Your task to perform on an android device: Clear the shopping cart on bestbuy.com. Search for "logitech g pro" on bestbuy.com, select the first entry, and add it to the cart. Image 0: 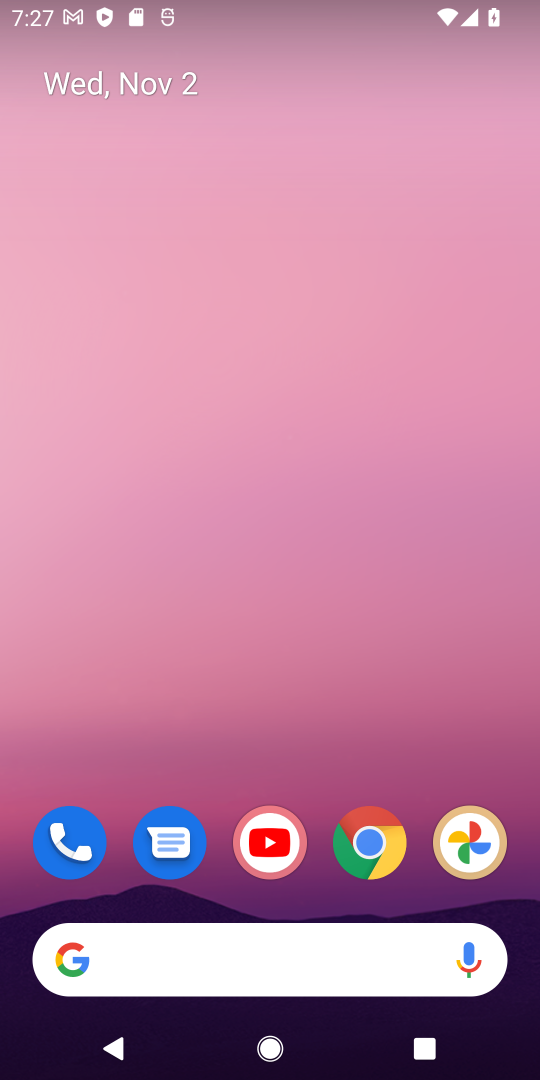
Step 0: drag from (200, 852) to (256, 144)
Your task to perform on an android device: Clear the shopping cart on bestbuy.com. Search for "logitech g pro" on bestbuy.com, select the first entry, and add it to the cart. Image 1: 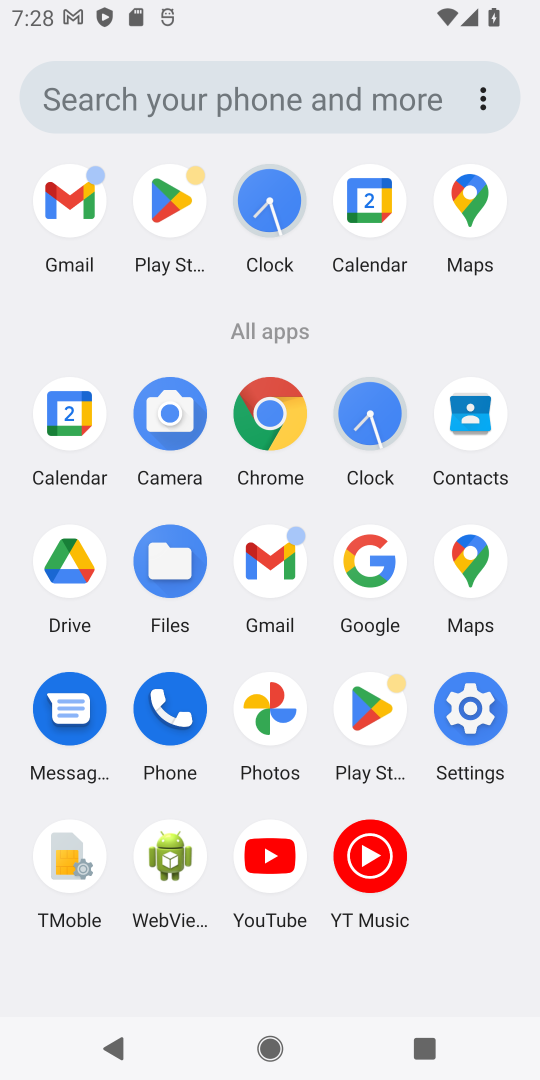
Step 1: click (367, 548)
Your task to perform on an android device: Clear the shopping cart on bestbuy.com. Search for "logitech g pro" on bestbuy.com, select the first entry, and add it to the cart. Image 2: 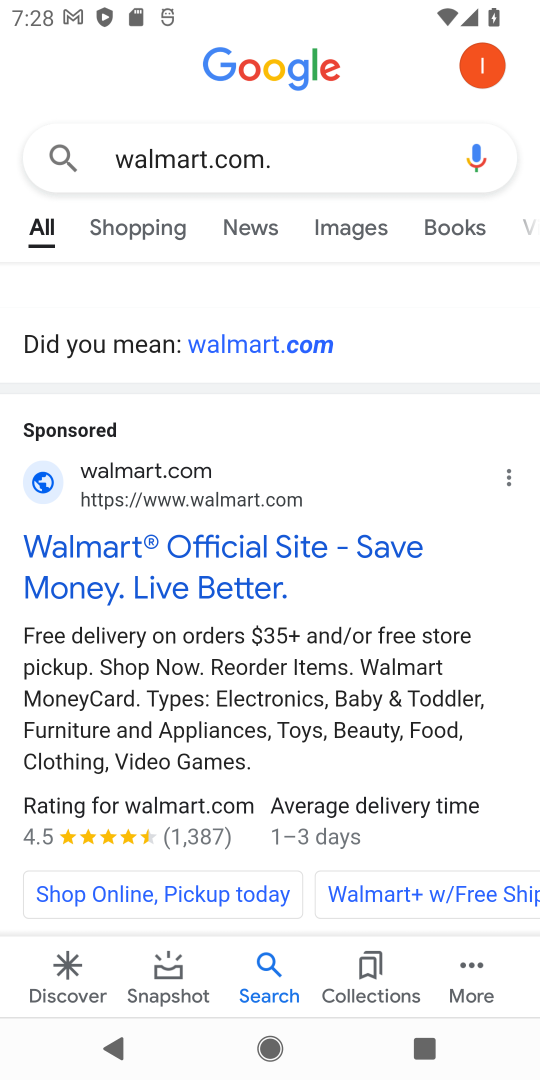
Step 2: click (255, 139)
Your task to perform on an android device: Clear the shopping cart on bestbuy.com. Search for "logitech g pro" on bestbuy.com, select the first entry, and add it to the cart. Image 3: 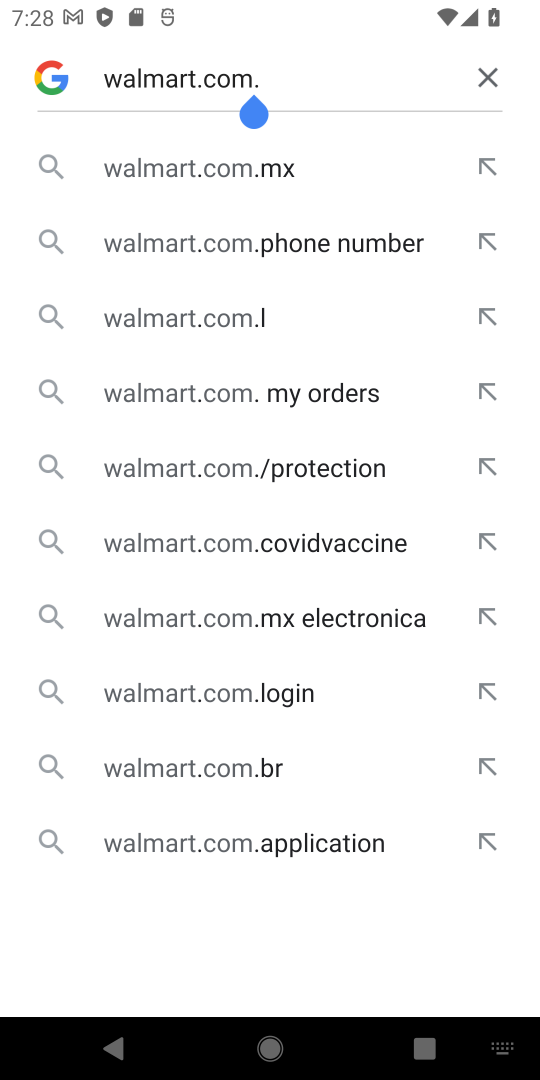
Step 3: click (487, 87)
Your task to perform on an android device: Clear the shopping cart on bestbuy.com. Search for "logitech g pro" on bestbuy.com, select the first entry, and add it to the cart. Image 4: 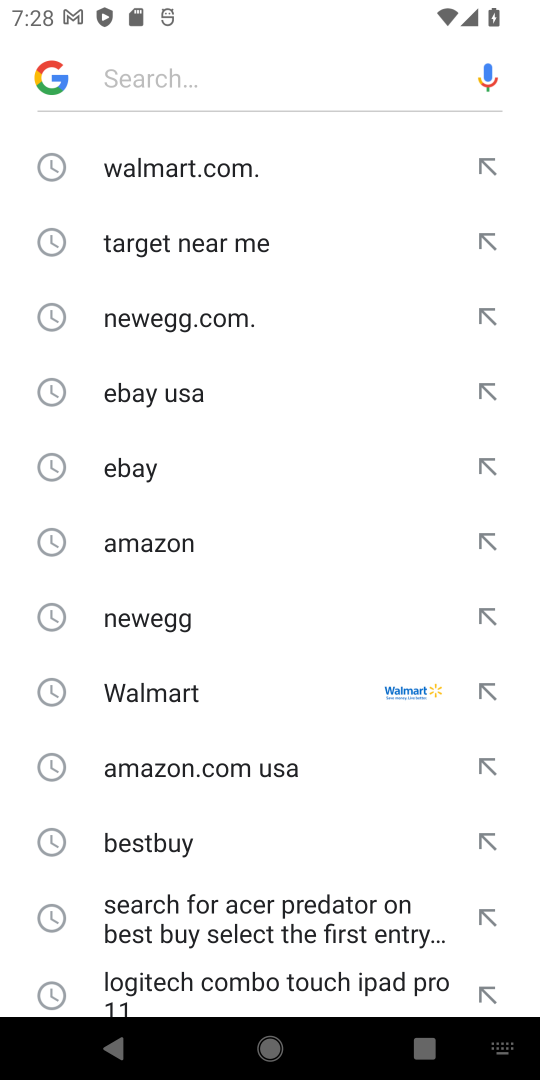
Step 4: click (113, 835)
Your task to perform on an android device: Clear the shopping cart on bestbuy.com. Search for "logitech g pro" on bestbuy.com, select the first entry, and add it to the cart. Image 5: 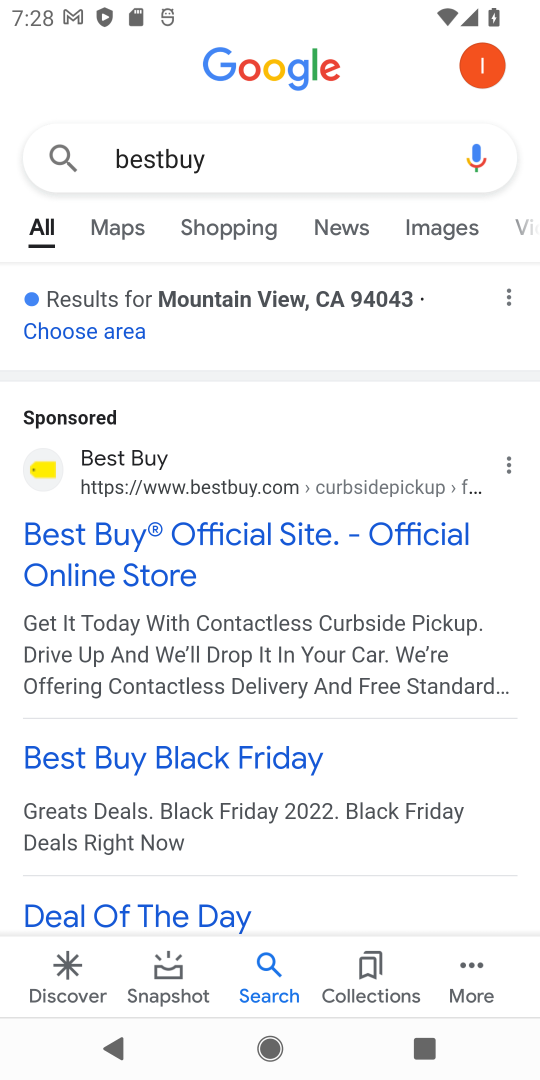
Step 5: drag from (101, 878) to (170, 257)
Your task to perform on an android device: Clear the shopping cart on bestbuy.com. Search for "logitech g pro" on bestbuy.com, select the first entry, and add it to the cart. Image 6: 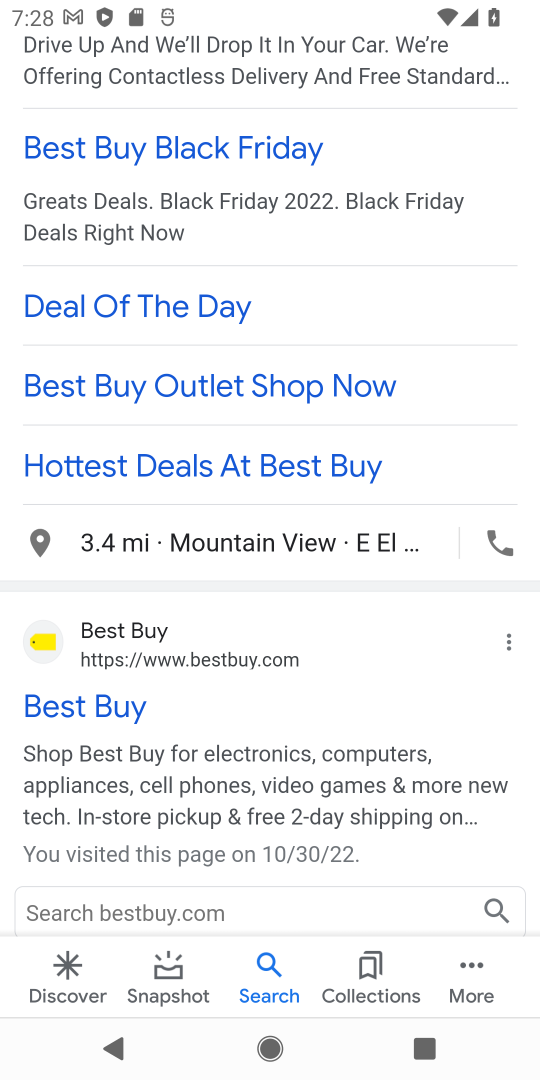
Step 6: click (33, 643)
Your task to perform on an android device: Clear the shopping cart on bestbuy.com. Search for "logitech g pro" on bestbuy.com, select the first entry, and add it to the cart. Image 7: 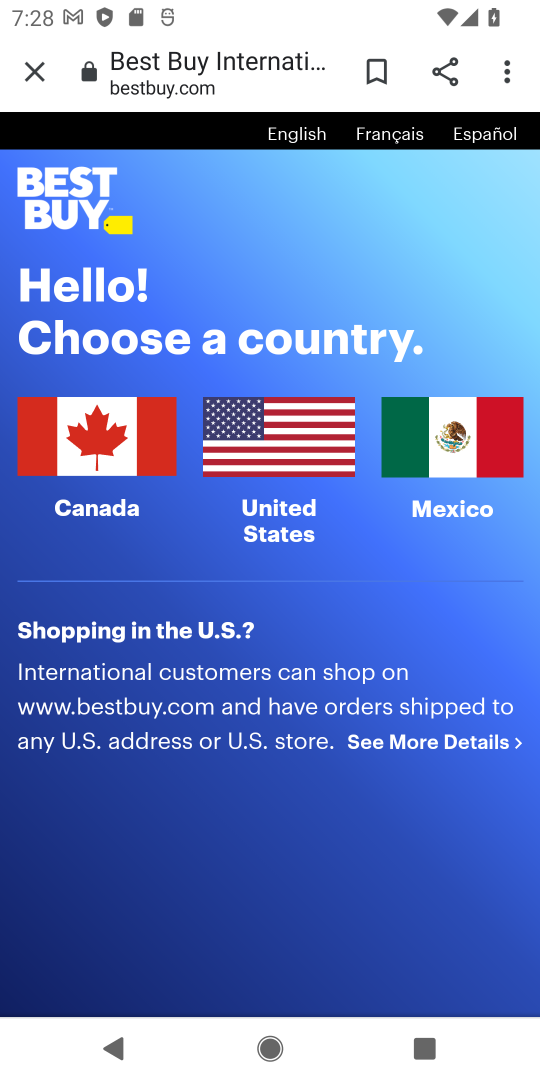
Step 7: click (260, 434)
Your task to perform on an android device: Clear the shopping cart on bestbuy.com. Search for "logitech g pro" on bestbuy.com, select the first entry, and add it to the cart. Image 8: 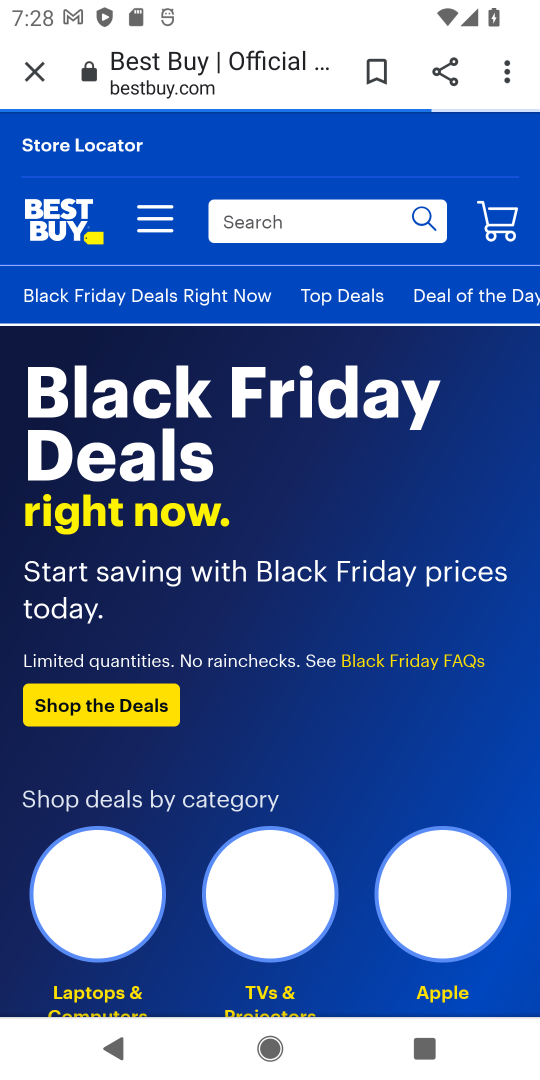
Step 8: click (258, 437)
Your task to perform on an android device: Clear the shopping cart on bestbuy.com. Search for "logitech g pro" on bestbuy.com, select the first entry, and add it to the cart. Image 9: 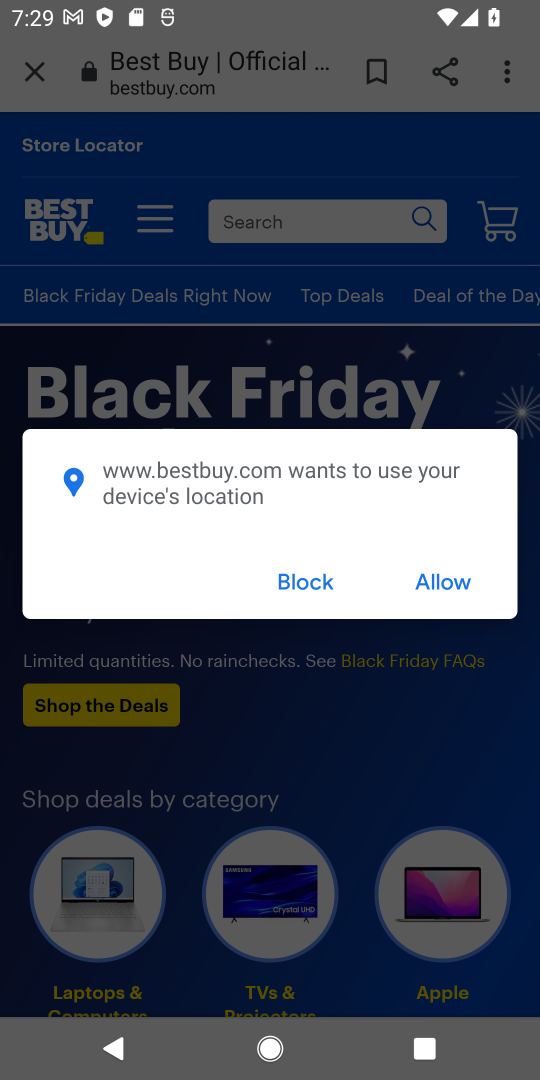
Step 9: click (439, 576)
Your task to perform on an android device: Clear the shopping cart on bestbuy.com. Search for "logitech g pro" on bestbuy.com, select the first entry, and add it to the cart. Image 10: 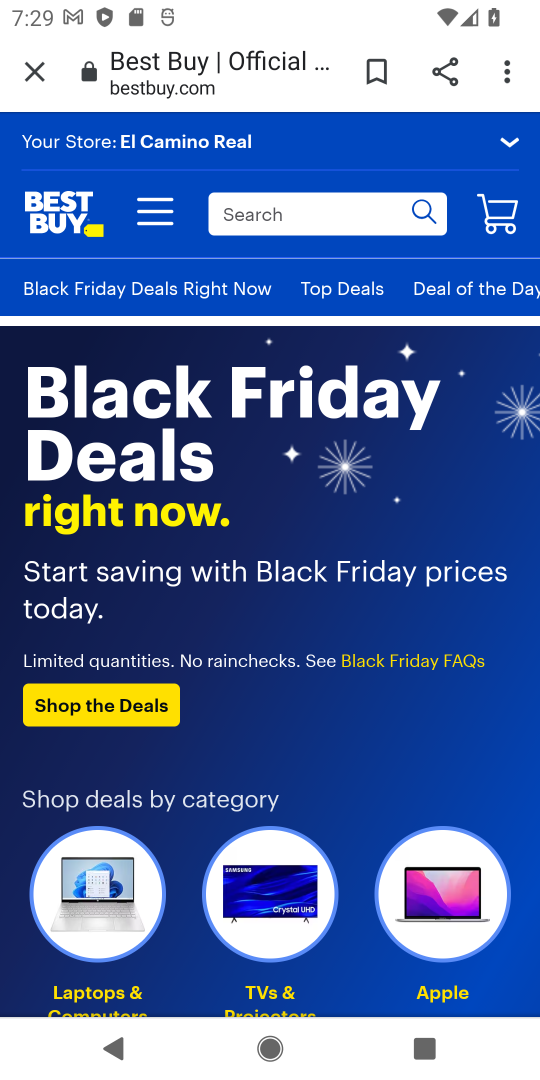
Step 10: click (274, 208)
Your task to perform on an android device: Clear the shopping cart on bestbuy.com. Search for "logitech g pro" on bestbuy.com, select the first entry, and add it to the cart. Image 11: 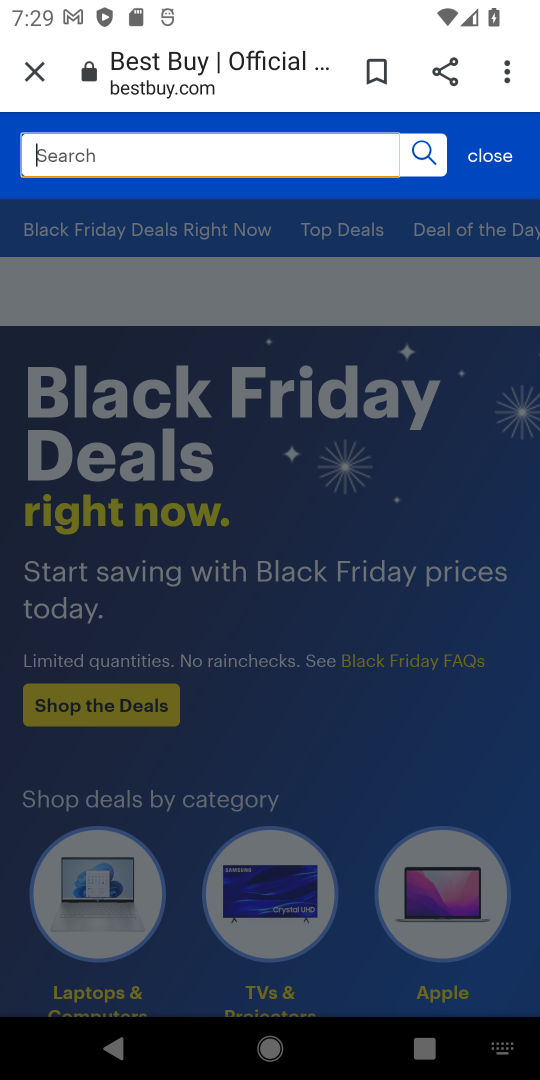
Step 11: type "logitech g pro "
Your task to perform on an android device: Clear the shopping cart on bestbuy.com. Search for "logitech g pro" on bestbuy.com, select the first entry, and add it to the cart. Image 12: 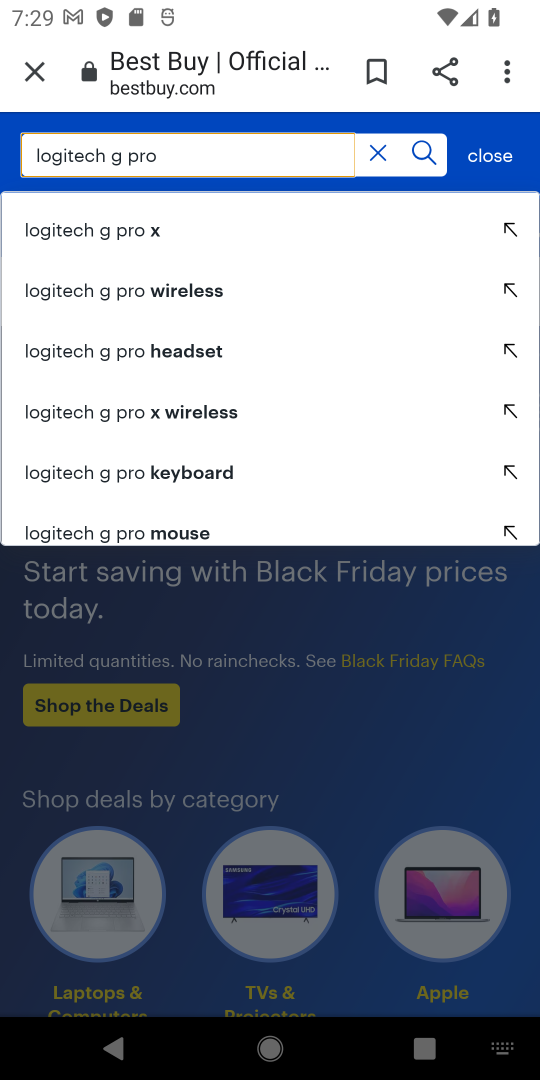
Step 12: click (98, 235)
Your task to perform on an android device: Clear the shopping cart on bestbuy.com. Search for "logitech g pro" on bestbuy.com, select the first entry, and add it to the cart. Image 13: 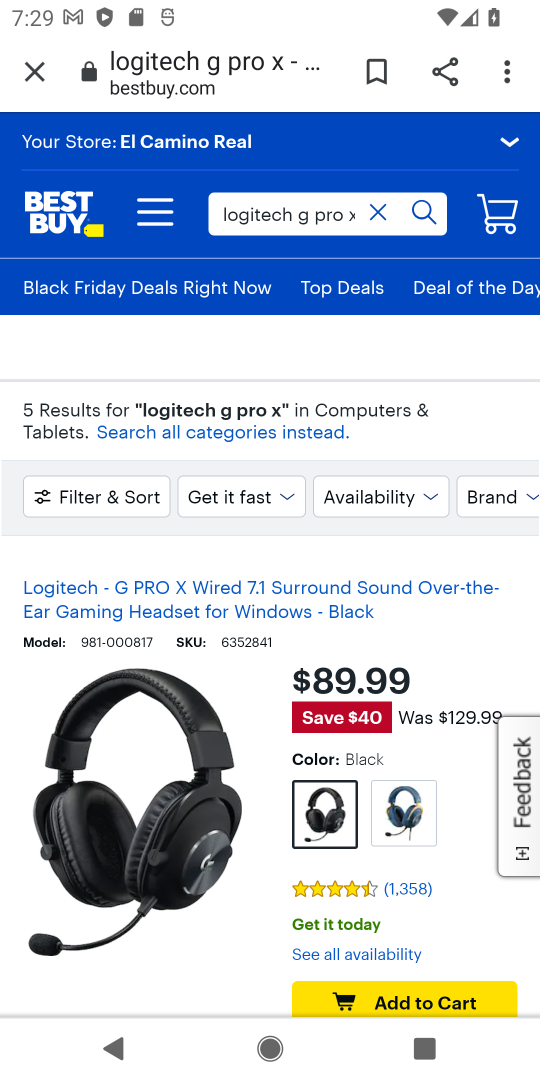
Step 13: click (387, 998)
Your task to perform on an android device: Clear the shopping cart on bestbuy.com. Search for "logitech g pro" on bestbuy.com, select the first entry, and add it to the cart. Image 14: 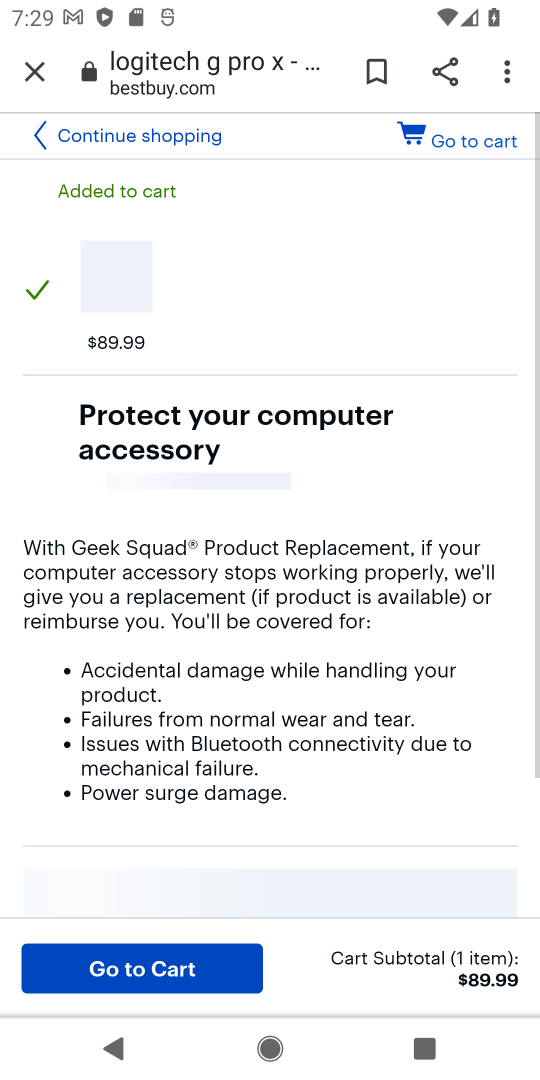
Step 14: task complete